Your task to perform on an android device: Search for usb-b on bestbuy, select the first entry, and add it to the cart. Image 0: 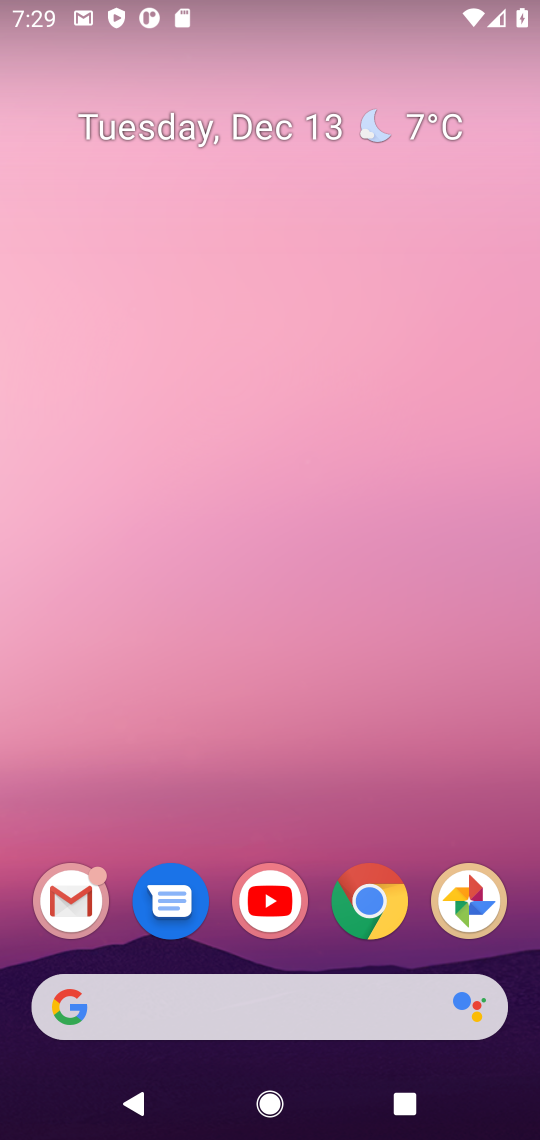
Step 0: click (373, 904)
Your task to perform on an android device: Search for usb-b on bestbuy, select the first entry, and add it to the cart. Image 1: 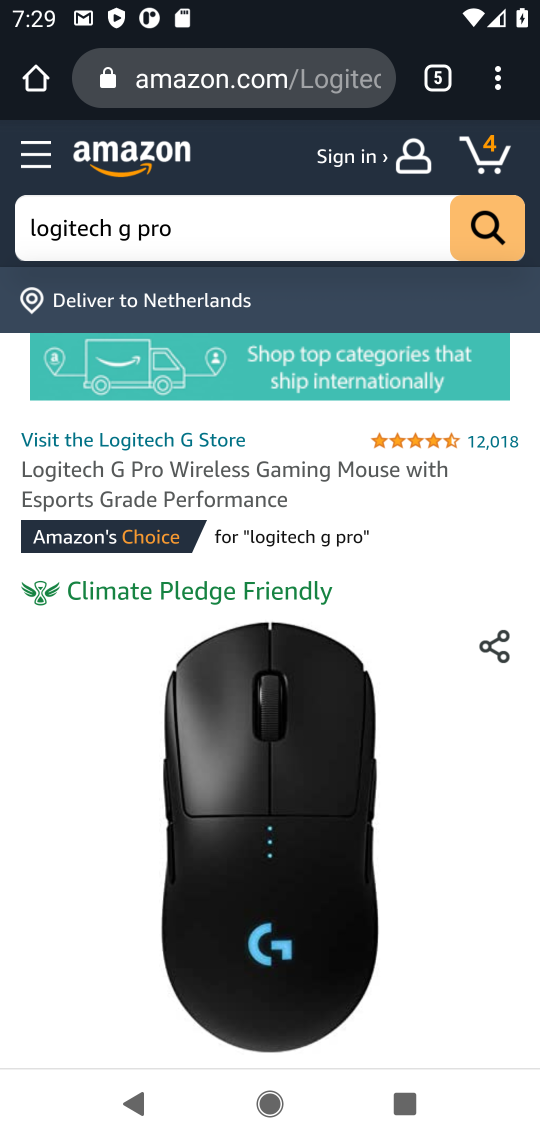
Step 1: click (441, 66)
Your task to perform on an android device: Search for usb-b on bestbuy, select the first entry, and add it to the cart. Image 2: 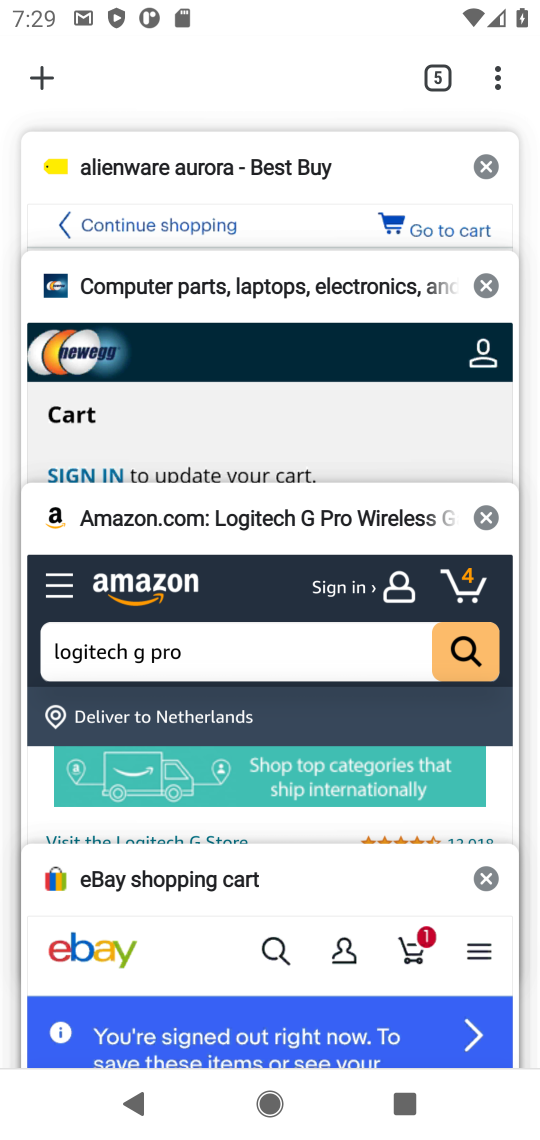
Step 2: click (286, 175)
Your task to perform on an android device: Search for usb-b on bestbuy, select the first entry, and add it to the cart. Image 3: 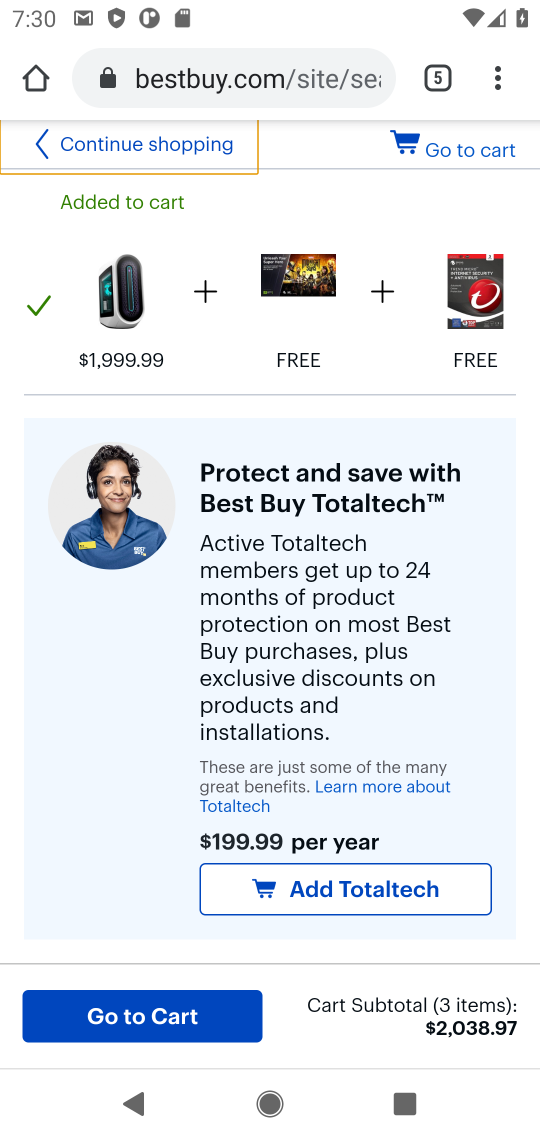
Step 3: click (188, 136)
Your task to perform on an android device: Search for usb-b on bestbuy, select the first entry, and add it to the cart. Image 4: 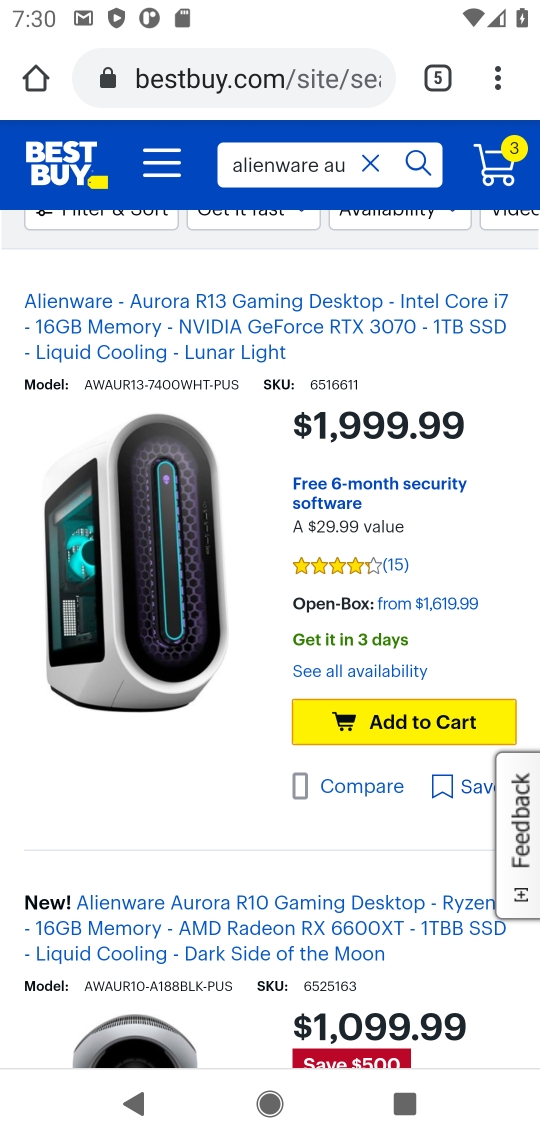
Step 4: click (372, 162)
Your task to perform on an android device: Search for usb-b on bestbuy, select the first entry, and add it to the cart. Image 5: 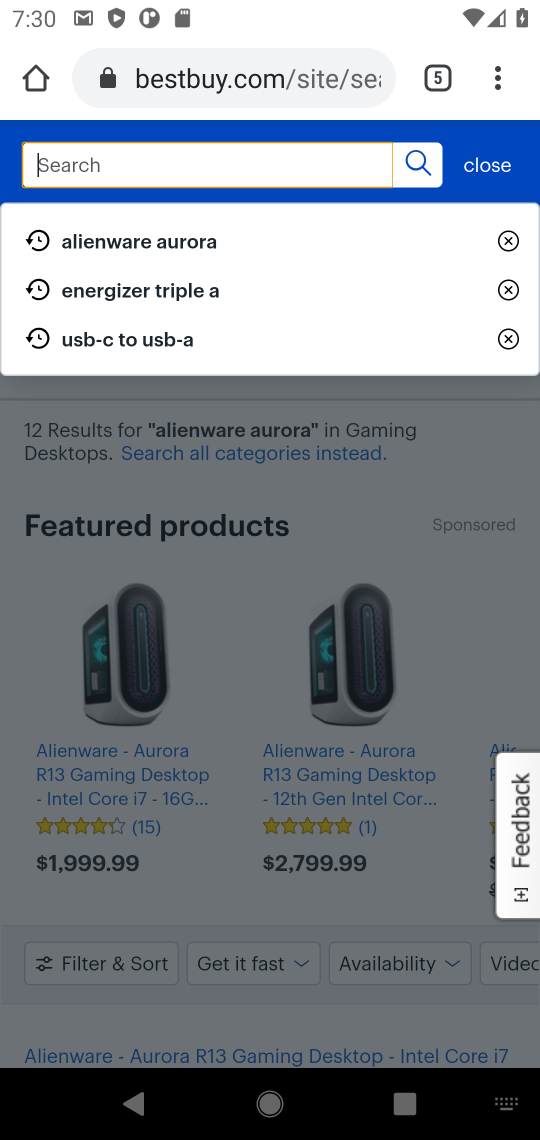
Step 5: type "usb-b"
Your task to perform on an android device: Search for usb-b on bestbuy, select the first entry, and add it to the cart. Image 6: 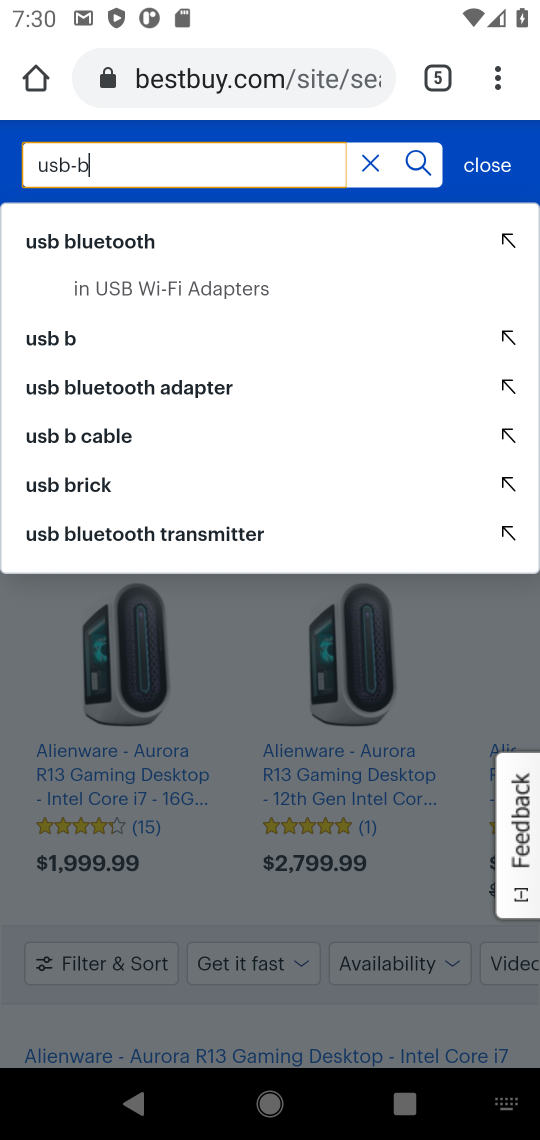
Step 6: click (53, 339)
Your task to perform on an android device: Search for usb-b on bestbuy, select the first entry, and add it to the cart. Image 7: 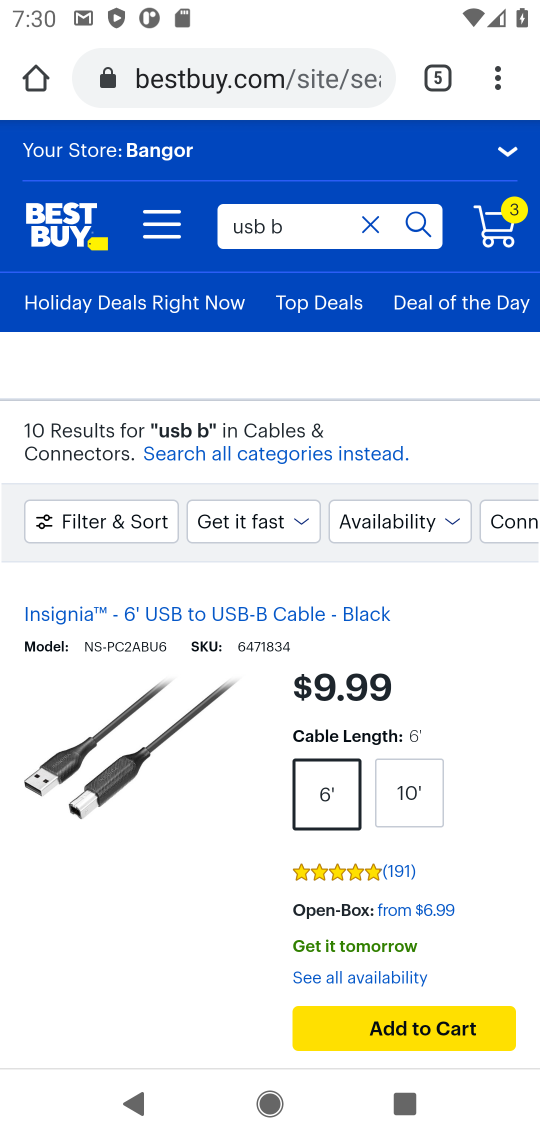
Step 7: click (402, 953)
Your task to perform on an android device: Search for usb-b on bestbuy, select the first entry, and add it to the cart. Image 8: 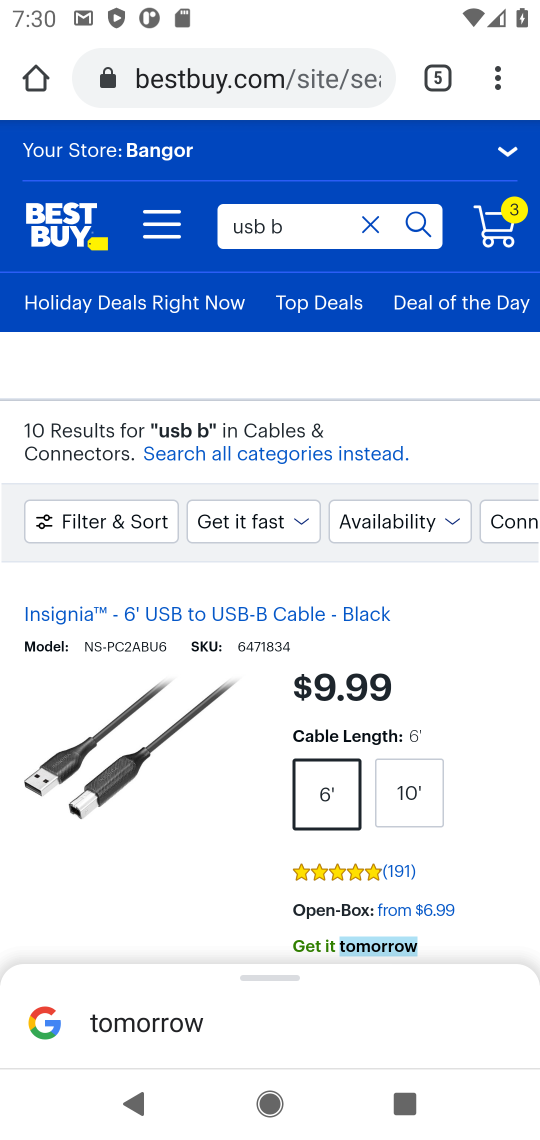
Step 8: click (461, 924)
Your task to perform on an android device: Search for usb-b on bestbuy, select the first entry, and add it to the cart. Image 9: 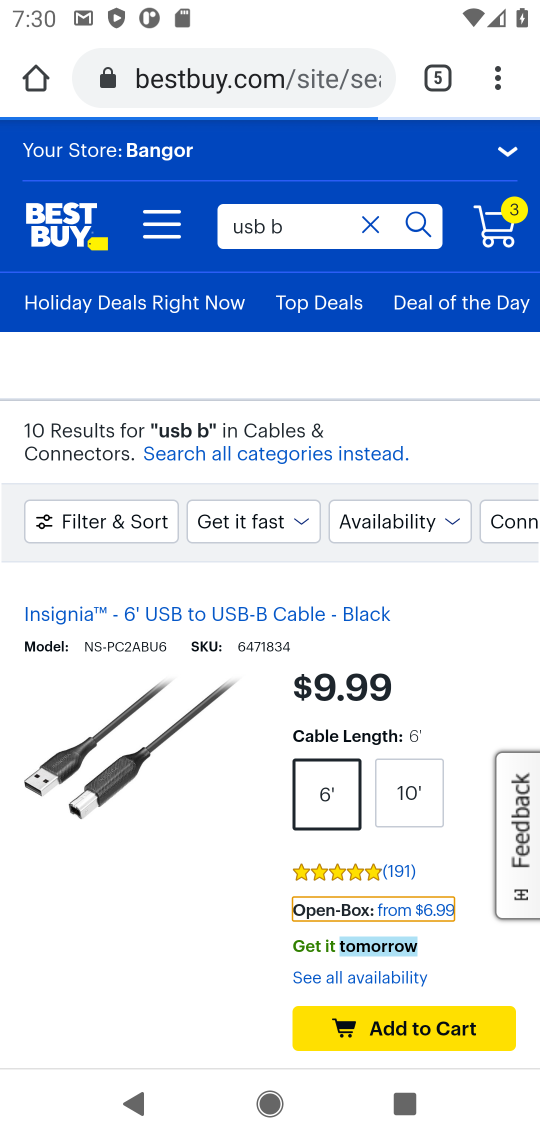
Step 9: click (390, 1025)
Your task to perform on an android device: Search for usb-b on bestbuy, select the first entry, and add it to the cart. Image 10: 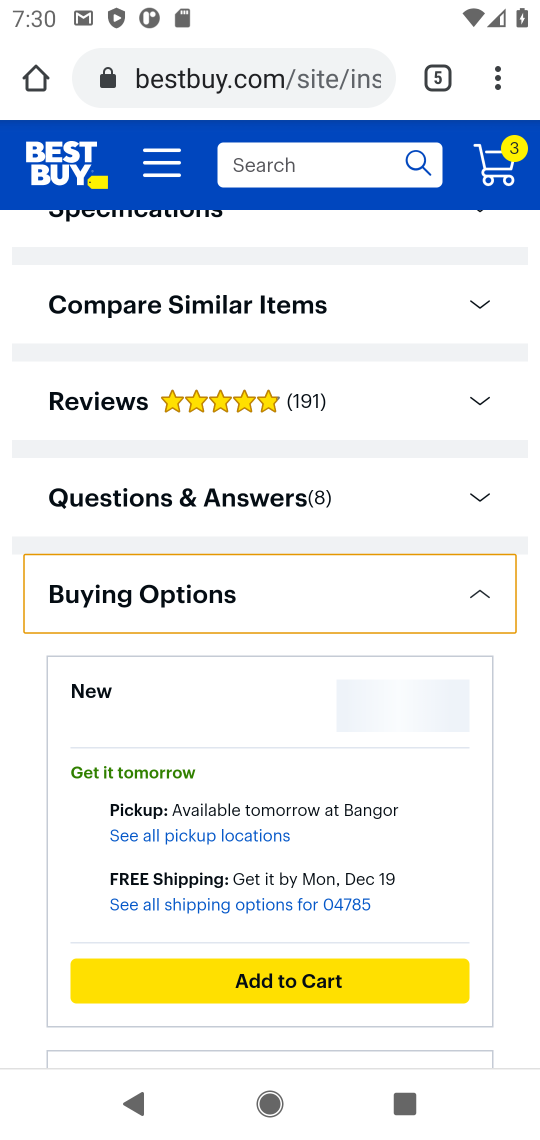
Step 10: task complete